Your task to perform on an android device: Open Yahoo.com Image 0: 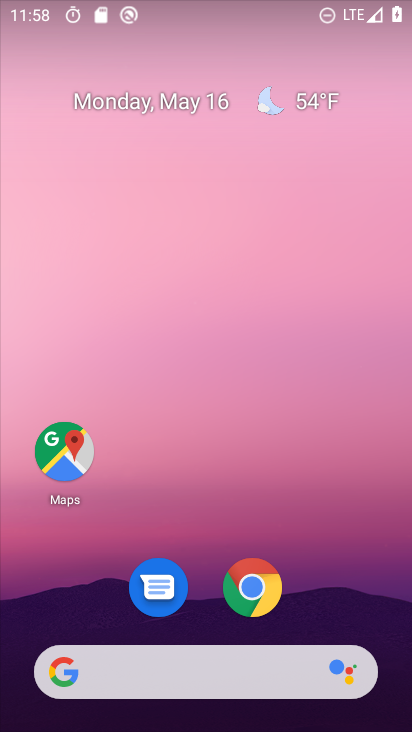
Step 0: drag from (219, 581) to (232, 241)
Your task to perform on an android device: Open Yahoo.com Image 1: 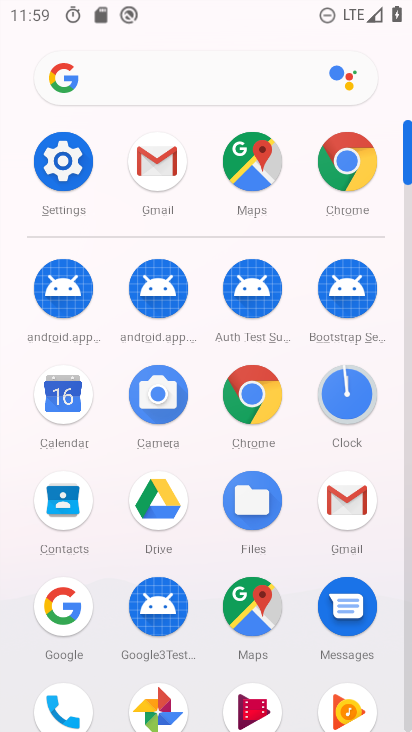
Step 1: click (347, 169)
Your task to perform on an android device: Open Yahoo.com Image 2: 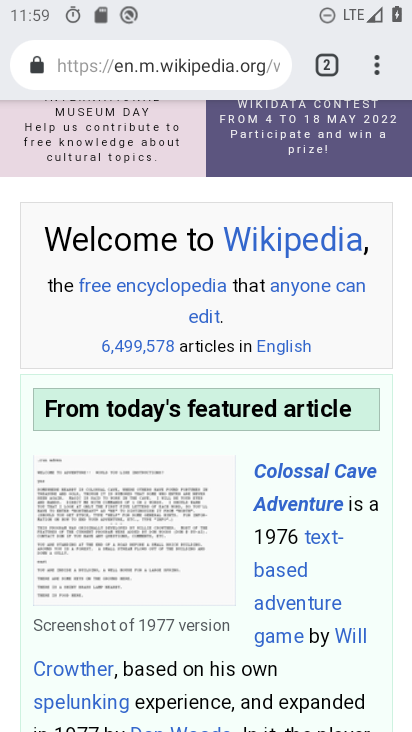
Step 2: click (190, 75)
Your task to perform on an android device: Open Yahoo.com Image 3: 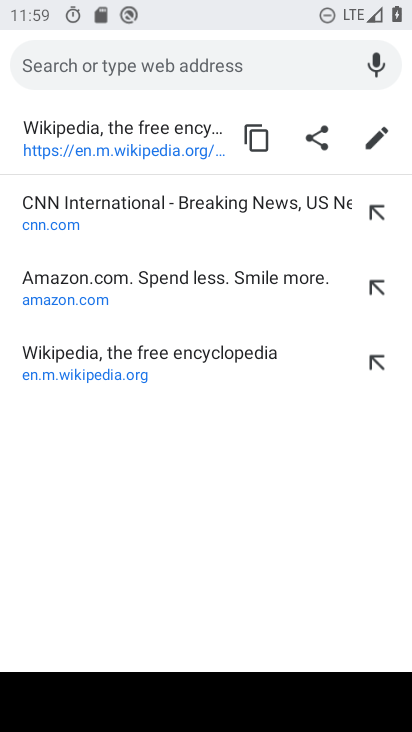
Step 3: type "yahoo"
Your task to perform on an android device: Open Yahoo.com Image 4: 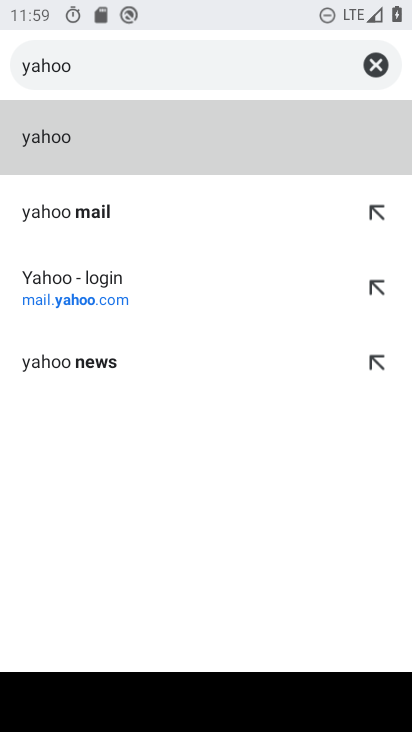
Step 4: click (84, 125)
Your task to perform on an android device: Open Yahoo.com Image 5: 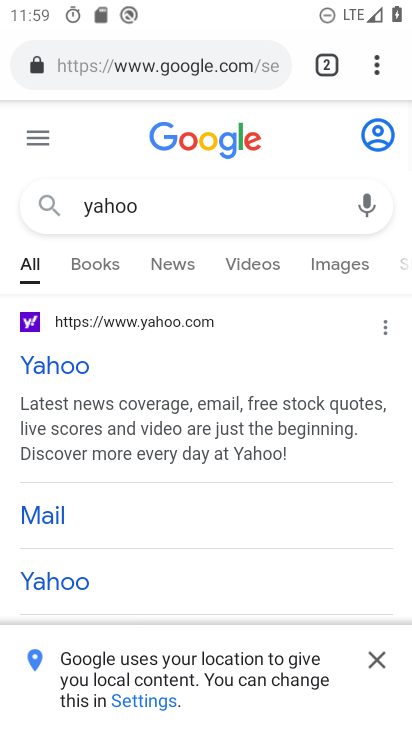
Step 5: drag from (213, 451) to (239, 184)
Your task to perform on an android device: Open Yahoo.com Image 6: 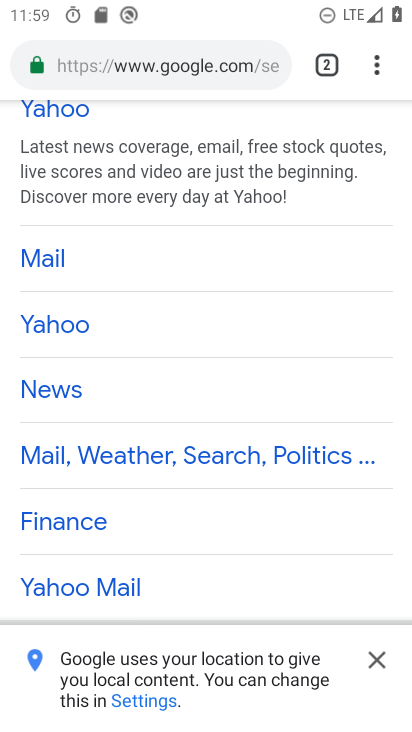
Step 6: drag from (180, 175) to (199, 672)
Your task to perform on an android device: Open Yahoo.com Image 7: 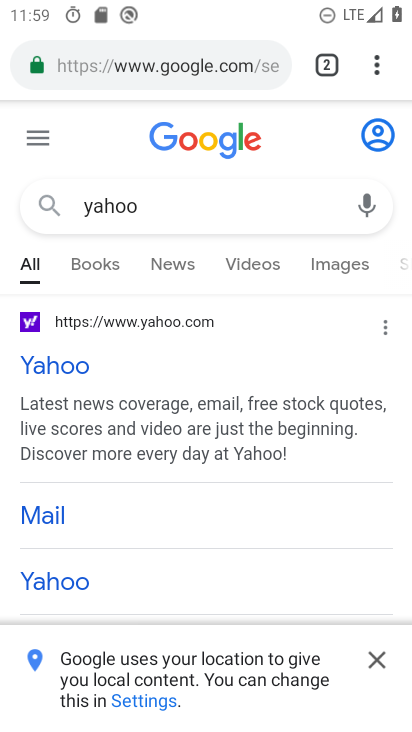
Step 7: drag from (196, 550) to (221, 245)
Your task to perform on an android device: Open Yahoo.com Image 8: 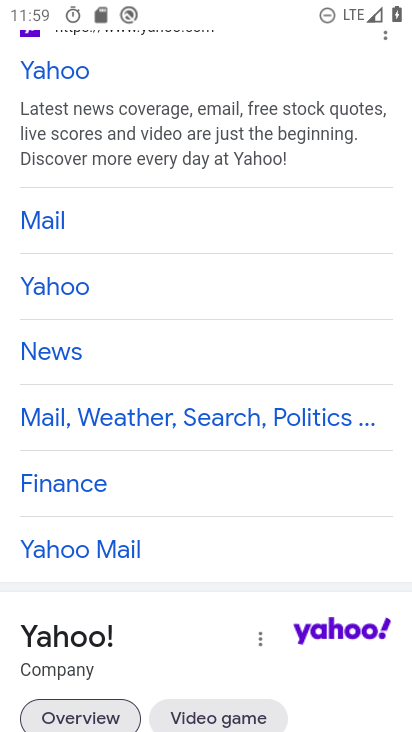
Step 8: drag from (218, 217) to (226, 683)
Your task to perform on an android device: Open Yahoo.com Image 9: 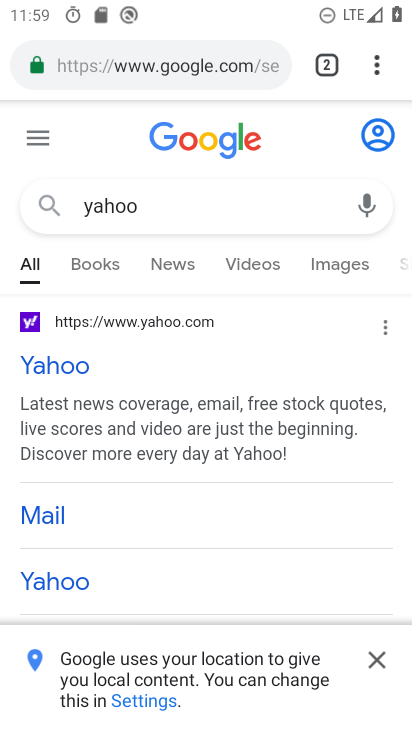
Step 9: drag from (199, 387) to (227, 555)
Your task to perform on an android device: Open Yahoo.com Image 10: 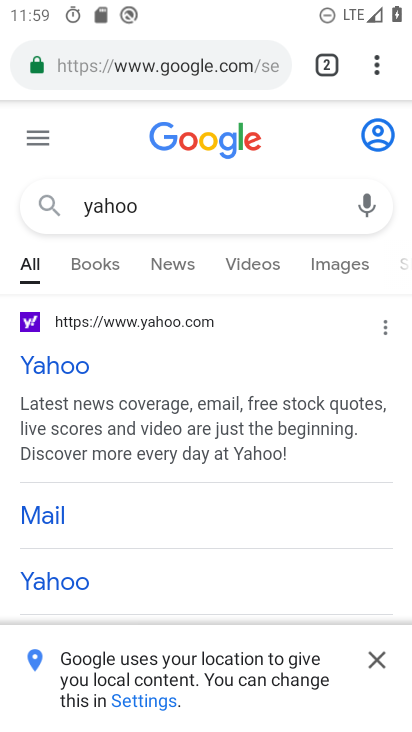
Step 10: click (39, 369)
Your task to perform on an android device: Open Yahoo.com Image 11: 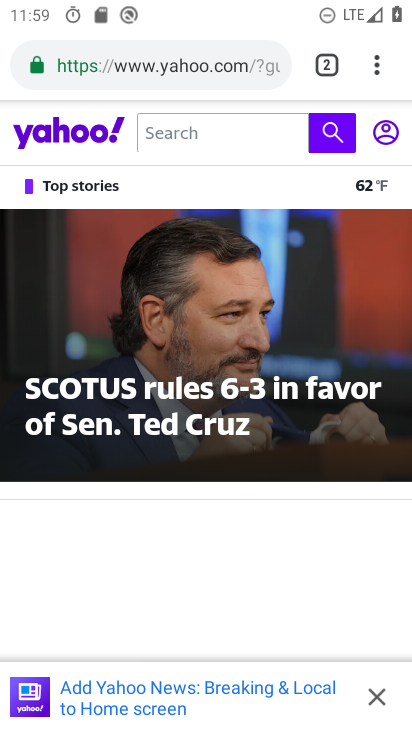
Step 11: task complete